Your task to perform on an android device: Open network settings Image 0: 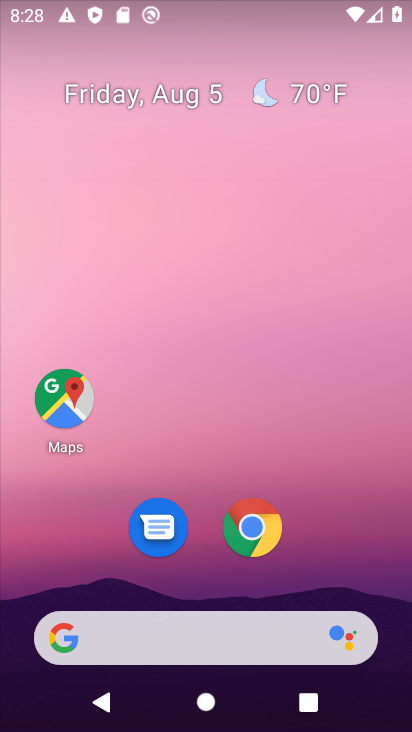
Step 0: drag from (215, 193) to (226, 106)
Your task to perform on an android device: Open network settings Image 1: 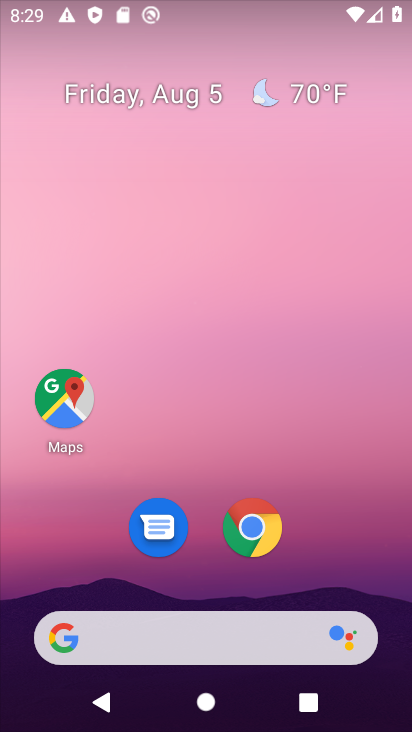
Step 1: drag from (220, 626) to (193, 90)
Your task to perform on an android device: Open network settings Image 2: 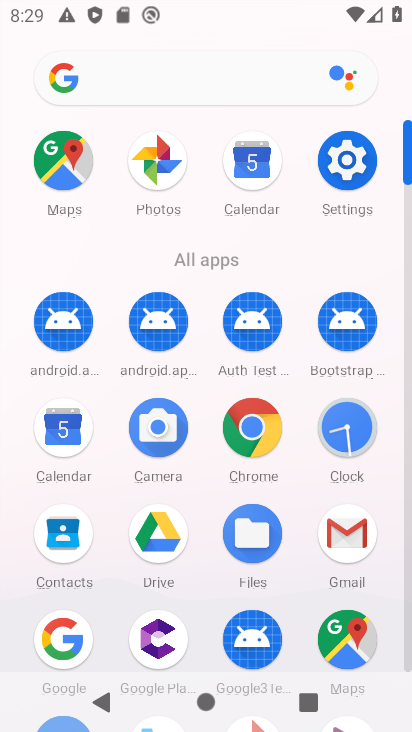
Step 2: click (329, 169)
Your task to perform on an android device: Open network settings Image 3: 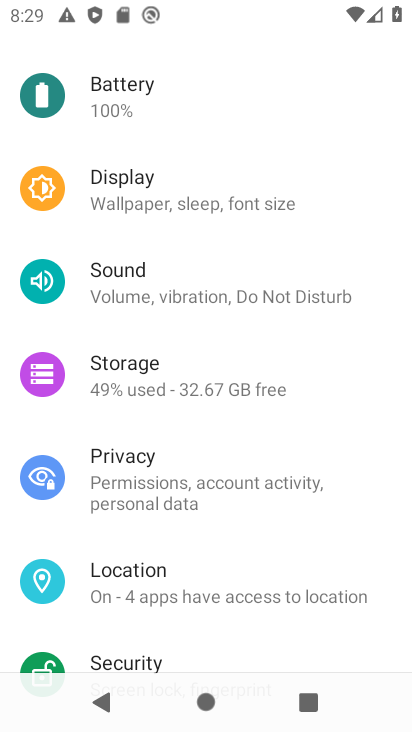
Step 3: drag from (141, 121) to (216, 574)
Your task to perform on an android device: Open network settings Image 4: 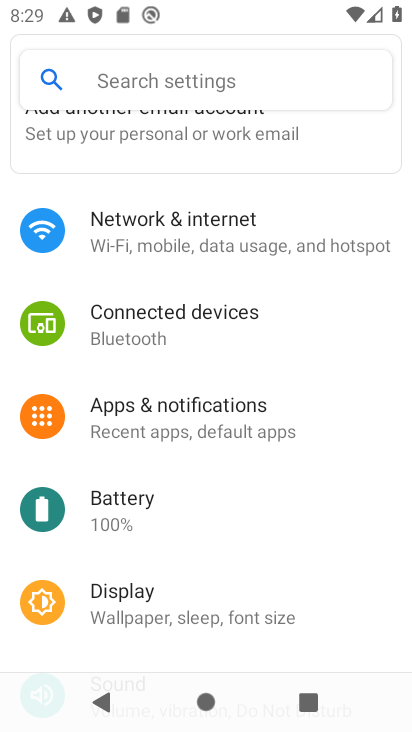
Step 4: click (211, 233)
Your task to perform on an android device: Open network settings Image 5: 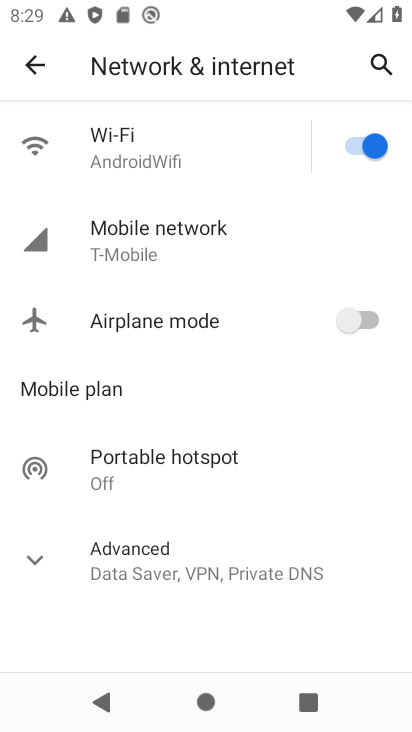
Step 5: task complete